Your task to perform on an android device: Go to Maps Image 0: 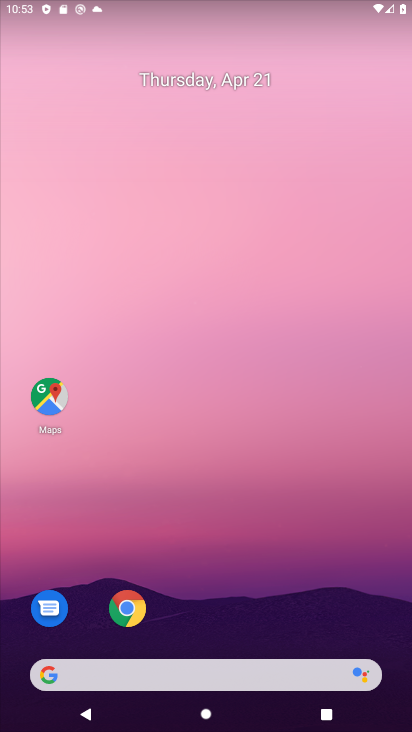
Step 0: click (49, 397)
Your task to perform on an android device: Go to Maps Image 1: 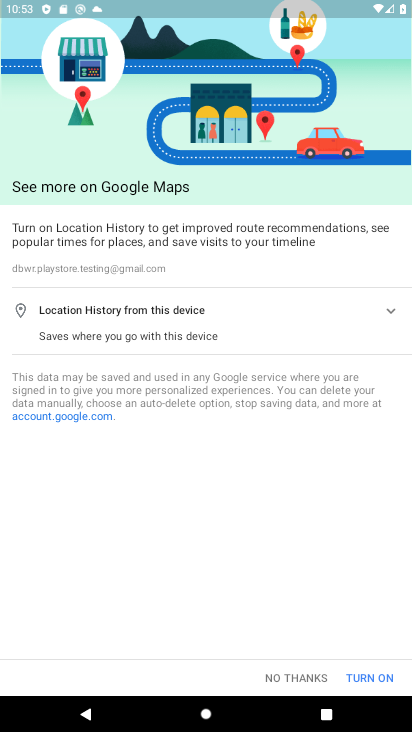
Step 1: click (311, 683)
Your task to perform on an android device: Go to Maps Image 2: 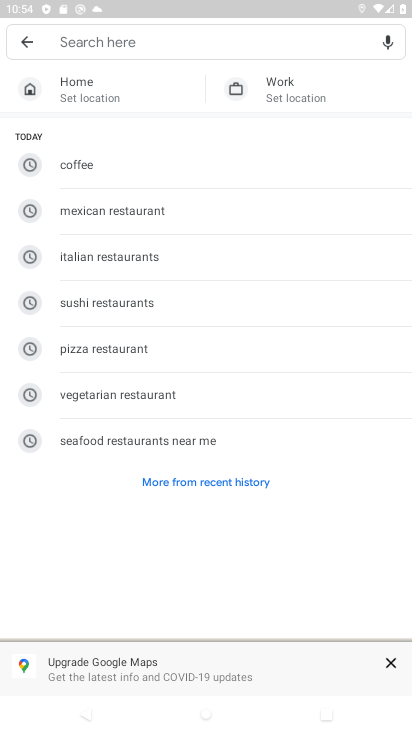
Step 2: task complete